Your task to perform on an android device: Search for seafood restaurants on Google Maps Image 0: 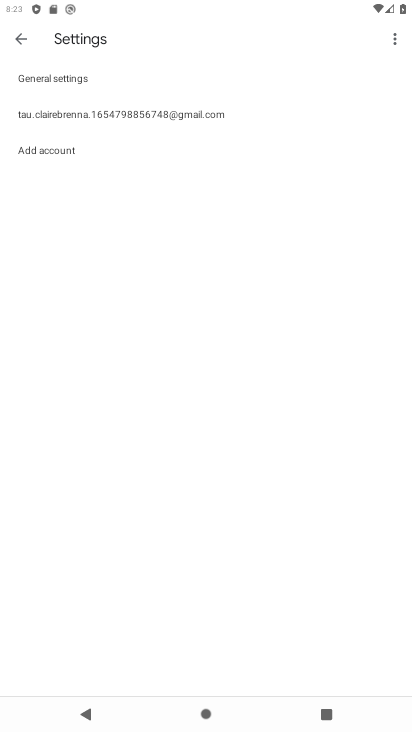
Step 0: press home button
Your task to perform on an android device: Search for seafood restaurants on Google Maps Image 1: 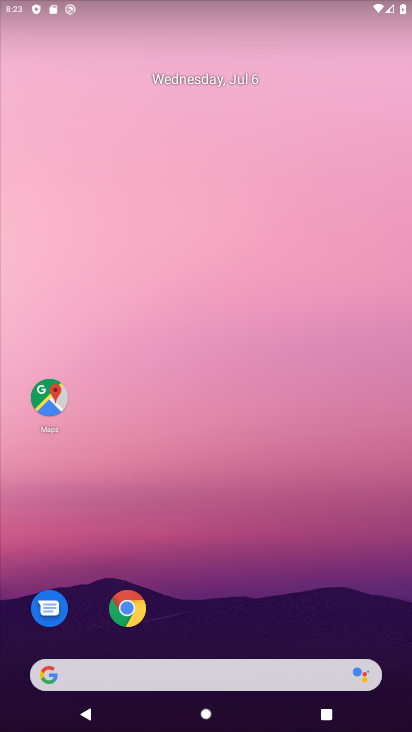
Step 1: drag from (151, 634) to (182, 182)
Your task to perform on an android device: Search for seafood restaurants on Google Maps Image 2: 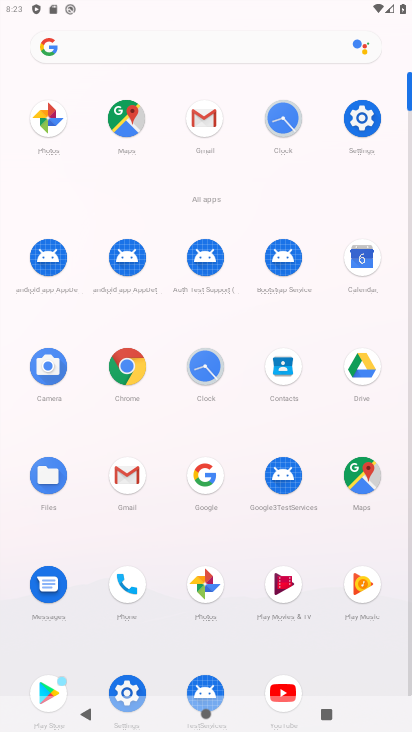
Step 2: click (364, 486)
Your task to perform on an android device: Search for seafood restaurants on Google Maps Image 3: 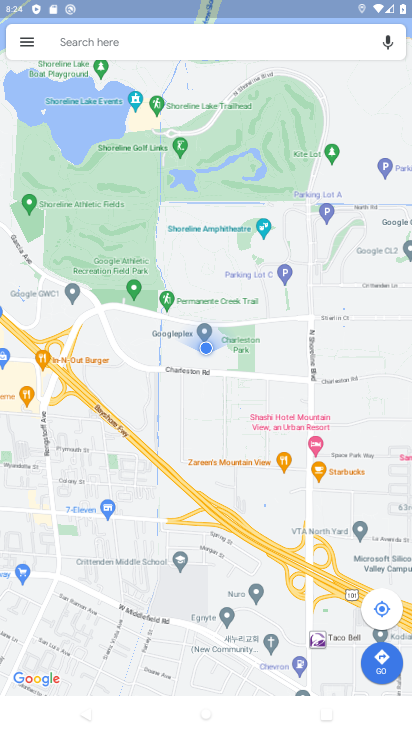
Step 3: click (116, 40)
Your task to perform on an android device: Search for seafood restaurants on Google Maps Image 4: 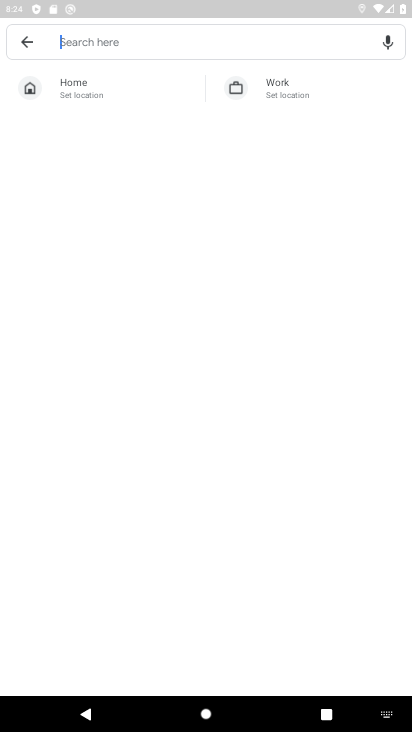
Step 4: type "seafood restaurants"
Your task to perform on an android device: Search for seafood restaurants on Google Maps Image 5: 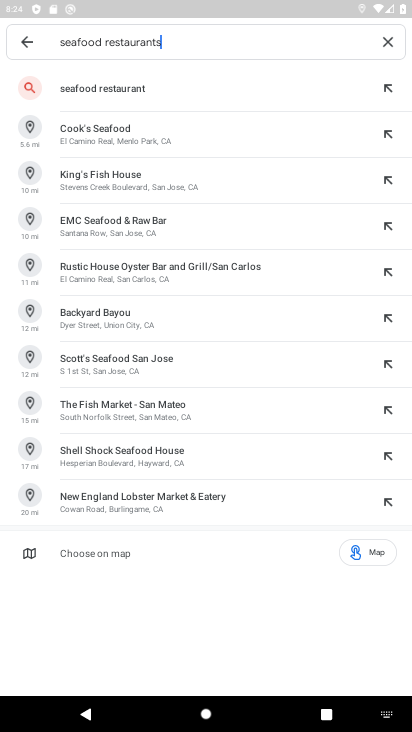
Step 5: click (119, 92)
Your task to perform on an android device: Search for seafood restaurants on Google Maps Image 6: 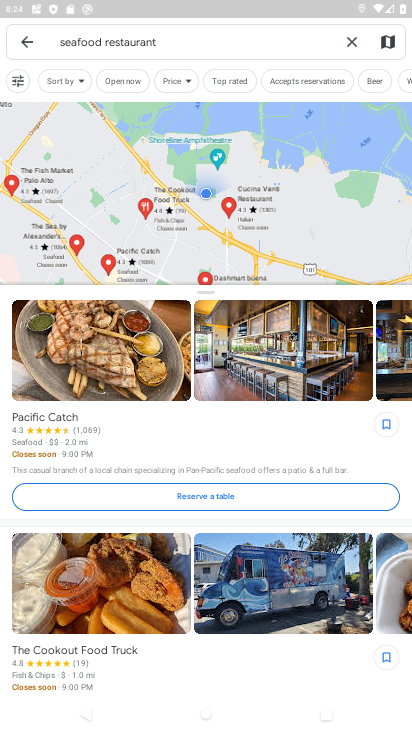
Step 6: task complete